Your task to perform on an android device: Open Yahoo.com Image 0: 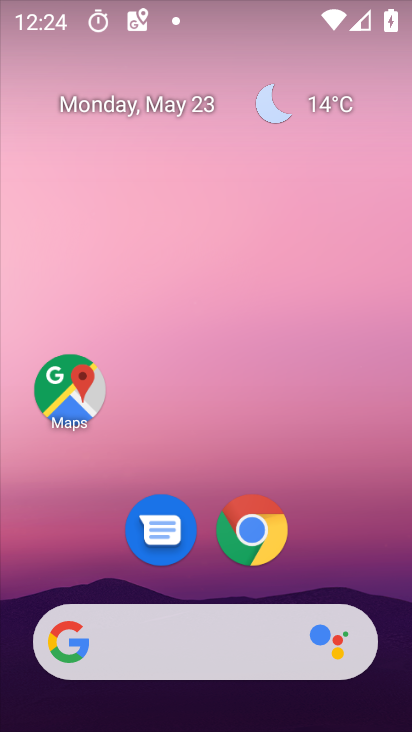
Step 0: click (251, 523)
Your task to perform on an android device: Open Yahoo.com Image 1: 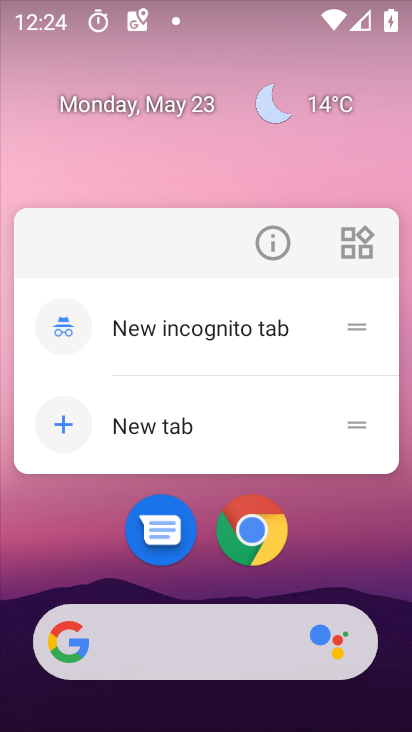
Step 1: click (247, 520)
Your task to perform on an android device: Open Yahoo.com Image 2: 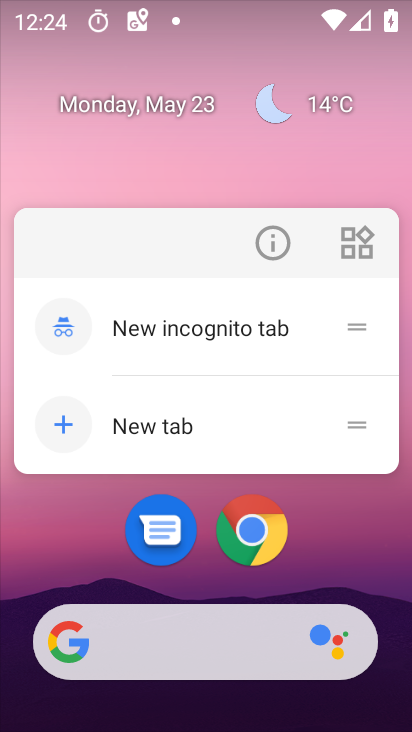
Step 2: click (251, 523)
Your task to perform on an android device: Open Yahoo.com Image 3: 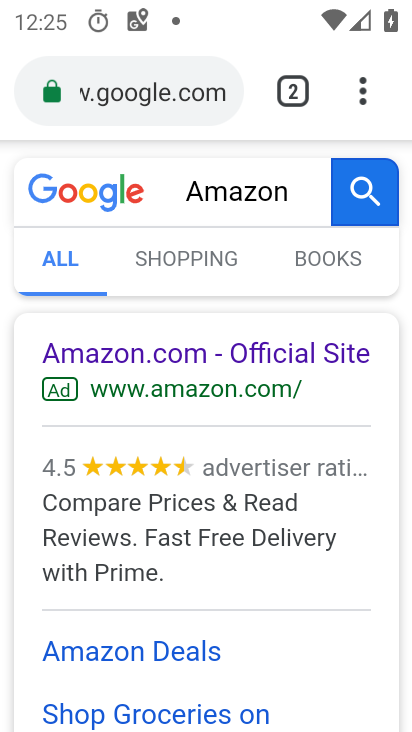
Step 3: click (222, 90)
Your task to perform on an android device: Open Yahoo.com Image 4: 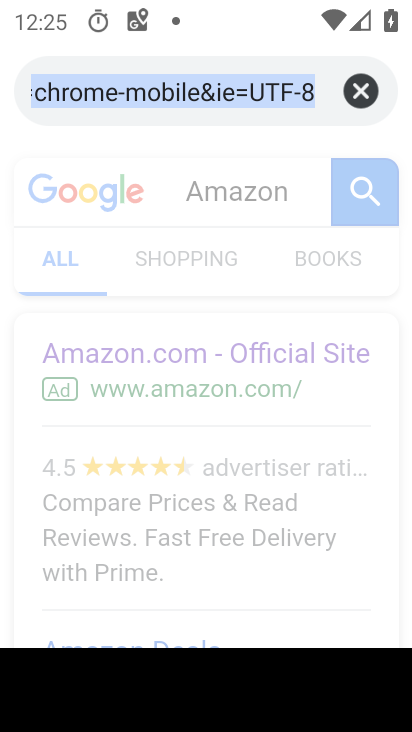
Step 4: click (370, 97)
Your task to perform on an android device: Open Yahoo.com Image 5: 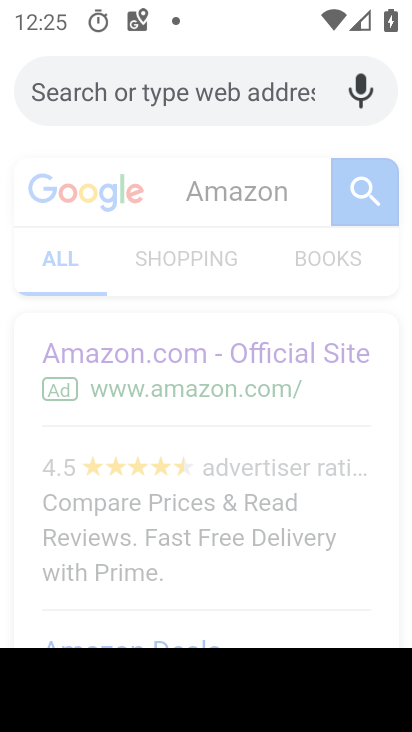
Step 5: click (229, 100)
Your task to perform on an android device: Open Yahoo.com Image 6: 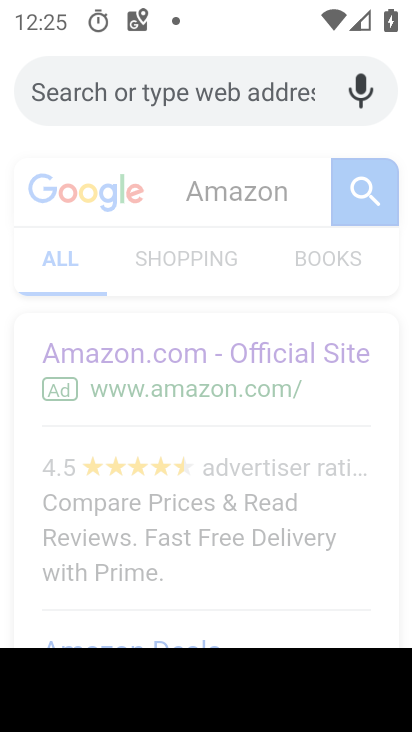
Step 6: type "Yahoo.com"
Your task to perform on an android device: Open Yahoo.com Image 7: 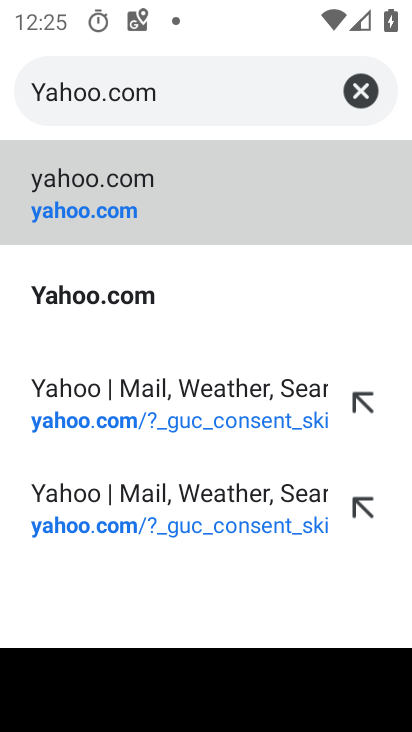
Step 7: click (82, 301)
Your task to perform on an android device: Open Yahoo.com Image 8: 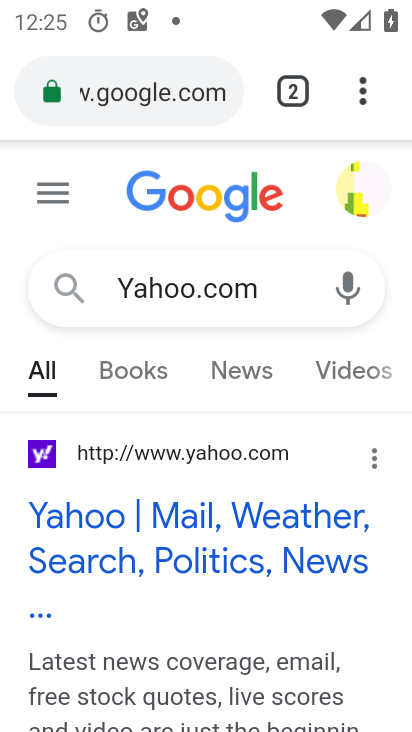
Step 8: task complete